Your task to perform on an android device: empty trash in the gmail app Image 0: 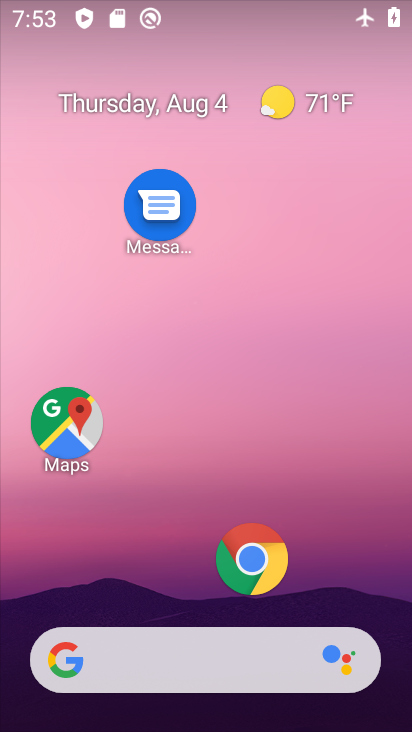
Step 0: drag from (183, 638) to (152, 77)
Your task to perform on an android device: empty trash in the gmail app Image 1: 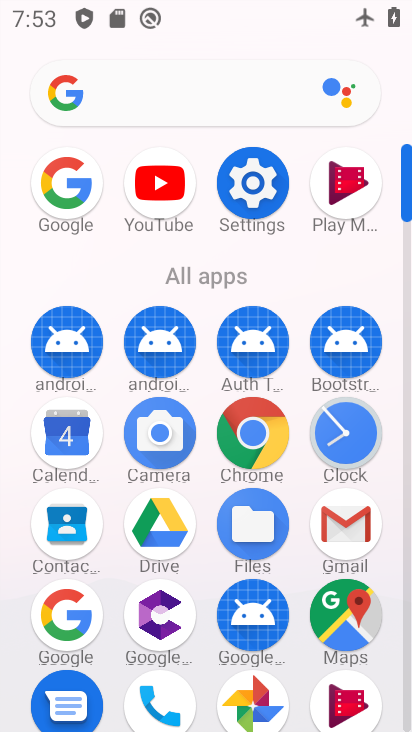
Step 1: click (360, 527)
Your task to perform on an android device: empty trash in the gmail app Image 2: 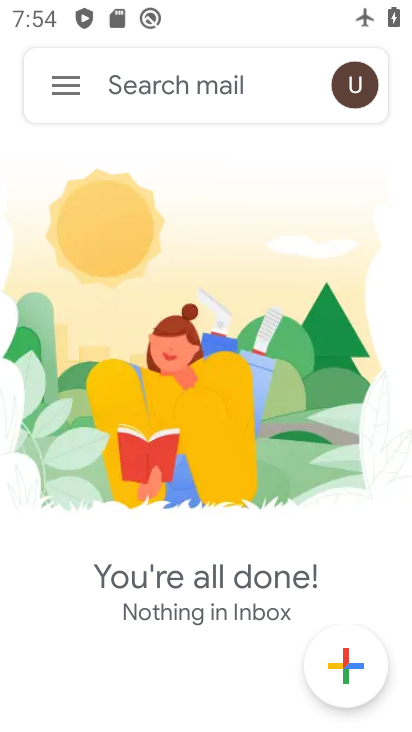
Step 2: click (58, 87)
Your task to perform on an android device: empty trash in the gmail app Image 3: 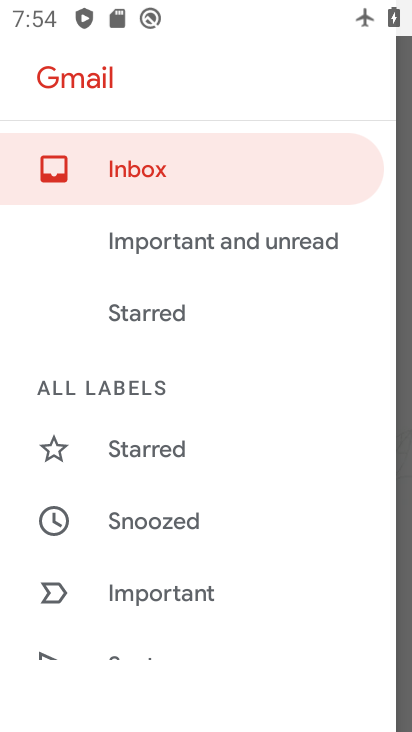
Step 3: drag from (205, 439) to (188, 86)
Your task to perform on an android device: empty trash in the gmail app Image 4: 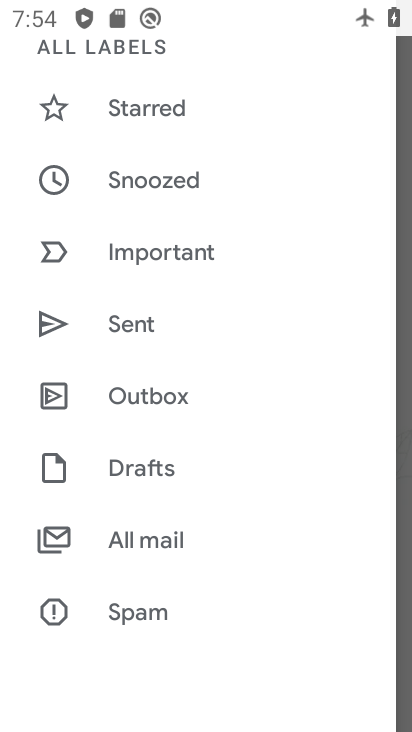
Step 4: drag from (184, 547) to (110, 233)
Your task to perform on an android device: empty trash in the gmail app Image 5: 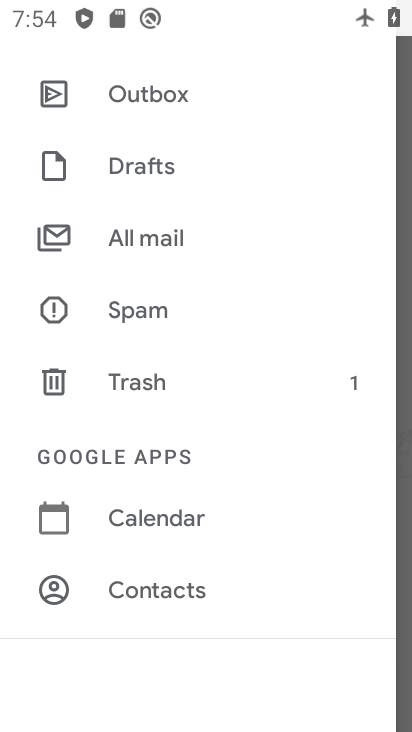
Step 5: click (81, 377)
Your task to perform on an android device: empty trash in the gmail app Image 6: 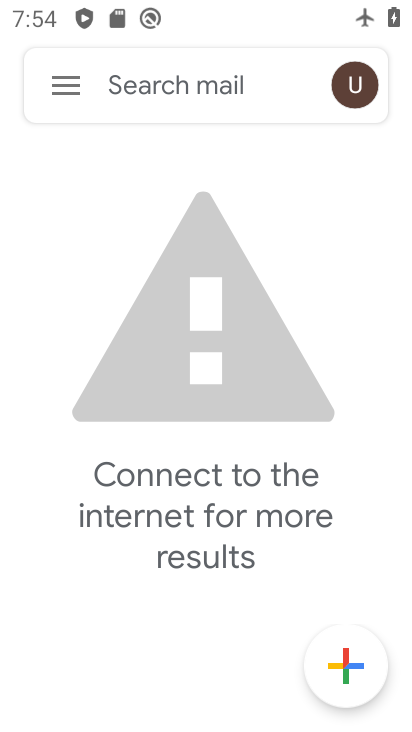
Step 6: task complete